Your task to perform on an android device: Search for razer kraken on newegg, select the first entry, add it to the cart, then select checkout. Image 0: 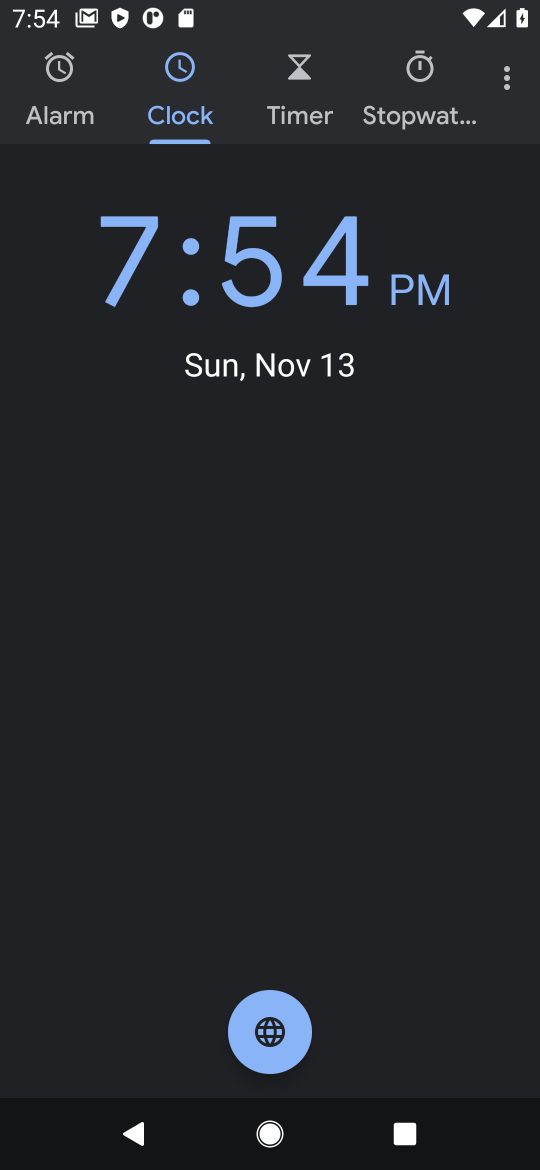
Step 0: press home button
Your task to perform on an android device: Search for razer kraken on newegg, select the first entry, add it to the cart, then select checkout. Image 1: 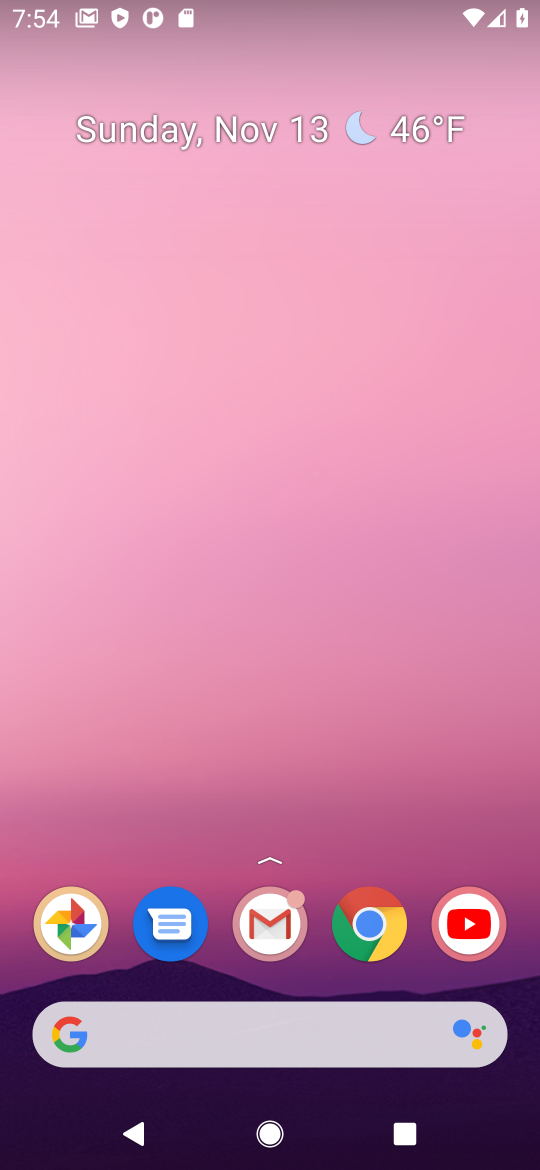
Step 1: click (372, 915)
Your task to perform on an android device: Search for razer kraken on newegg, select the first entry, add it to the cart, then select checkout. Image 2: 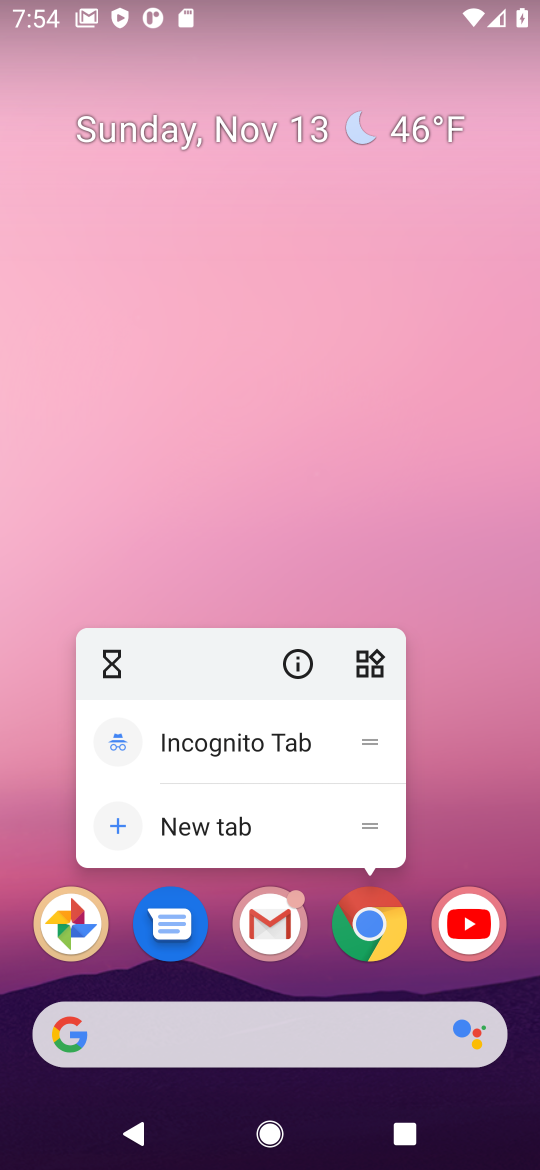
Step 2: click (372, 920)
Your task to perform on an android device: Search for razer kraken on newegg, select the first entry, add it to the cart, then select checkout. Image 3: 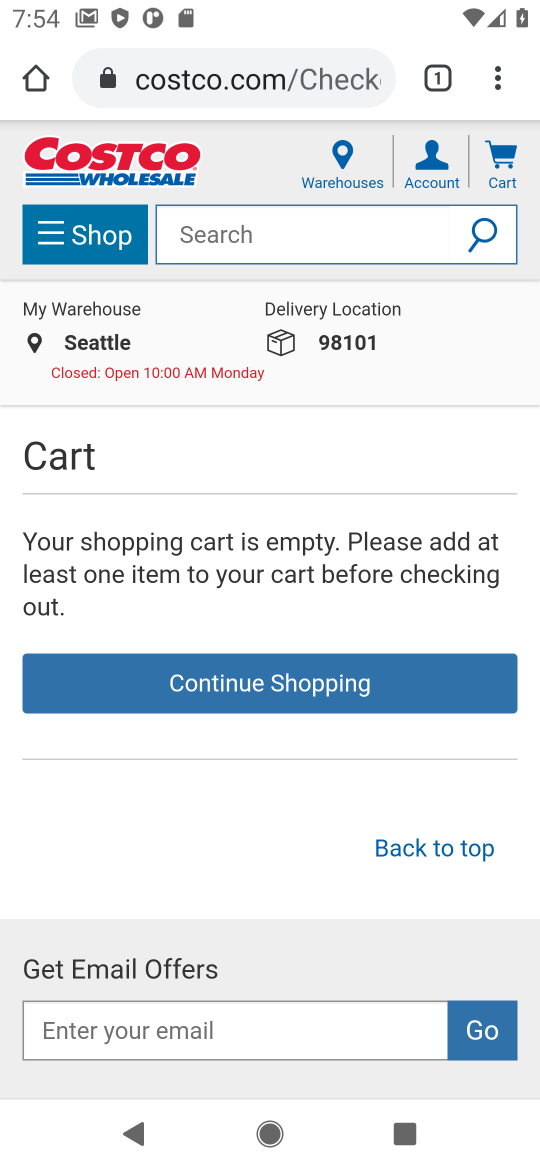
Step 3: click (324, 76)
Your task to perform on an android device: Search for razer kraken on newegg, select the first entry, add it to the cart, then select checkout. Image 4: 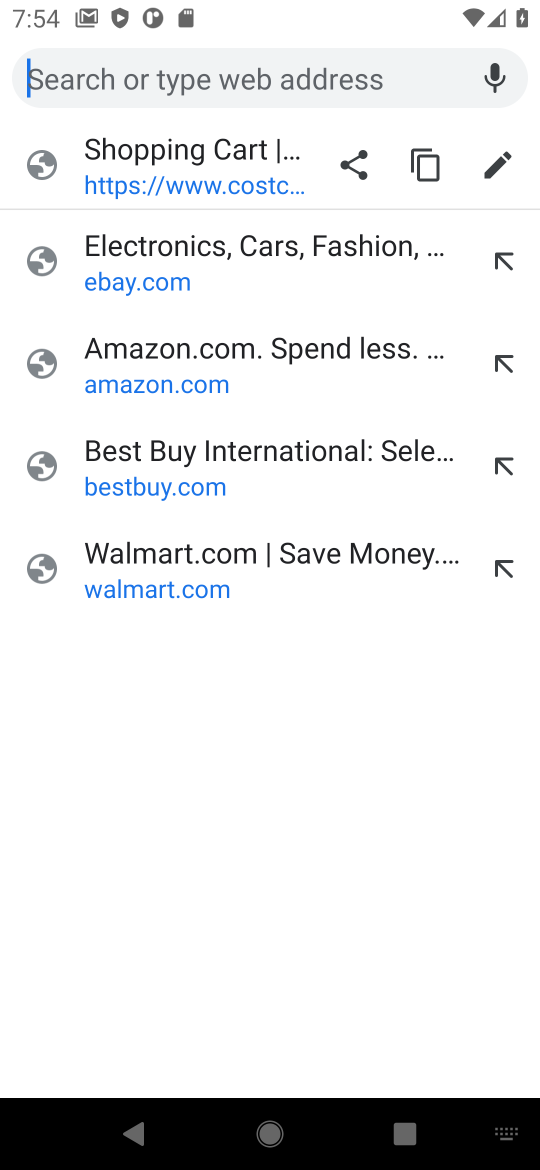
Step 4: type "newegg"
Your task to perform on an android device: Search for razer kraken on newegg, select the first entry, add it to the cart, then select checkout. Image 5: 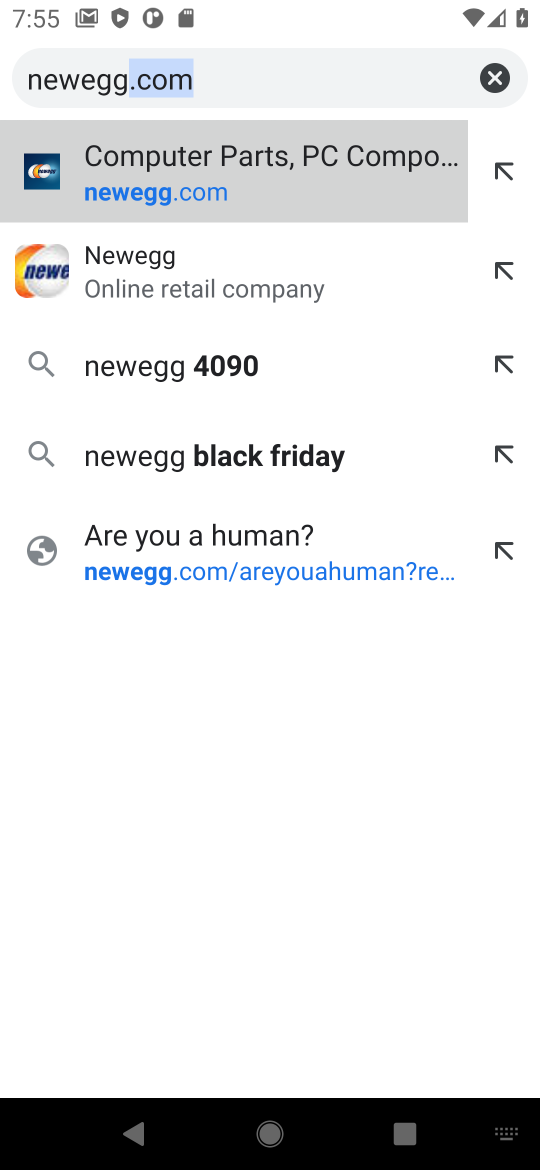
Step 5: press enter
Your task to perform on an android device: Search for razer kraken on newegg, select the first entry, add it to the cart, then select checkout. Image 6: 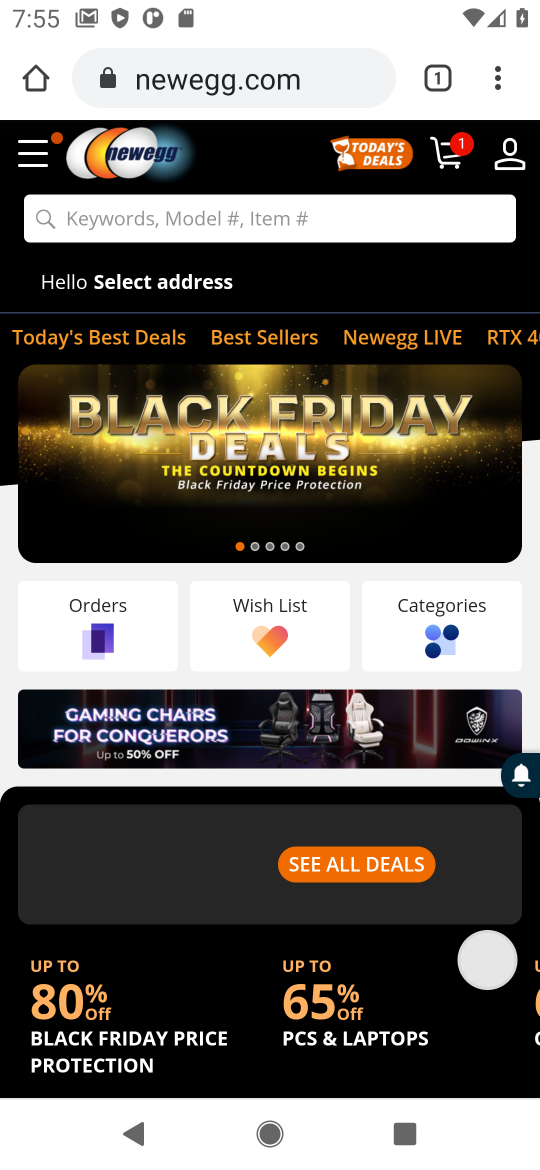
Step 6: click (273, 207)
Your task to perform on an android device: Search for razer kraken on newegg, select the first entry, add it to the cart, then select checkout. Image 7: 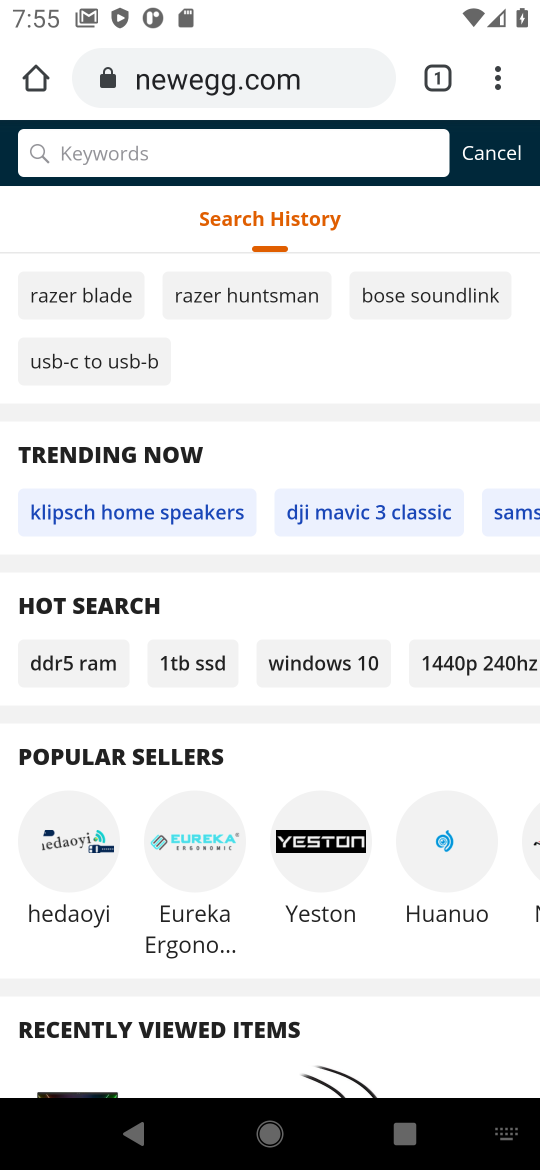
Step 7: type " razer kraken"
Your task to perform on an android device: Search for razer kraken on newegg, select the first entry, add it to the cart, then select checkout. Image 8: 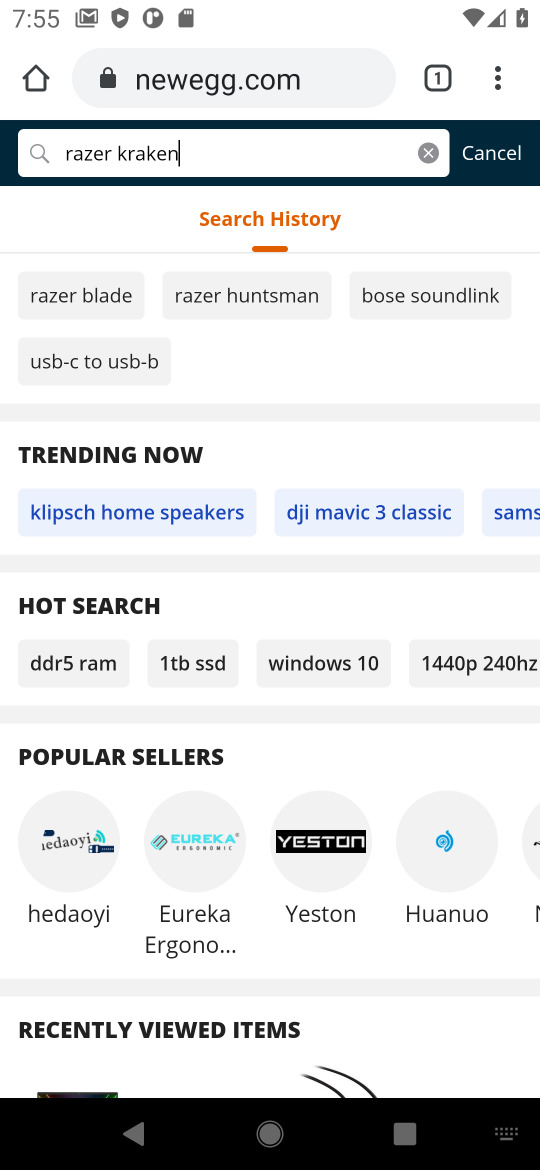
Step 8: press enter
Your task to perform on an android device: Search for razer kraken on newegg, select the first entry, add it to the cart, then select checkout. Image 9: 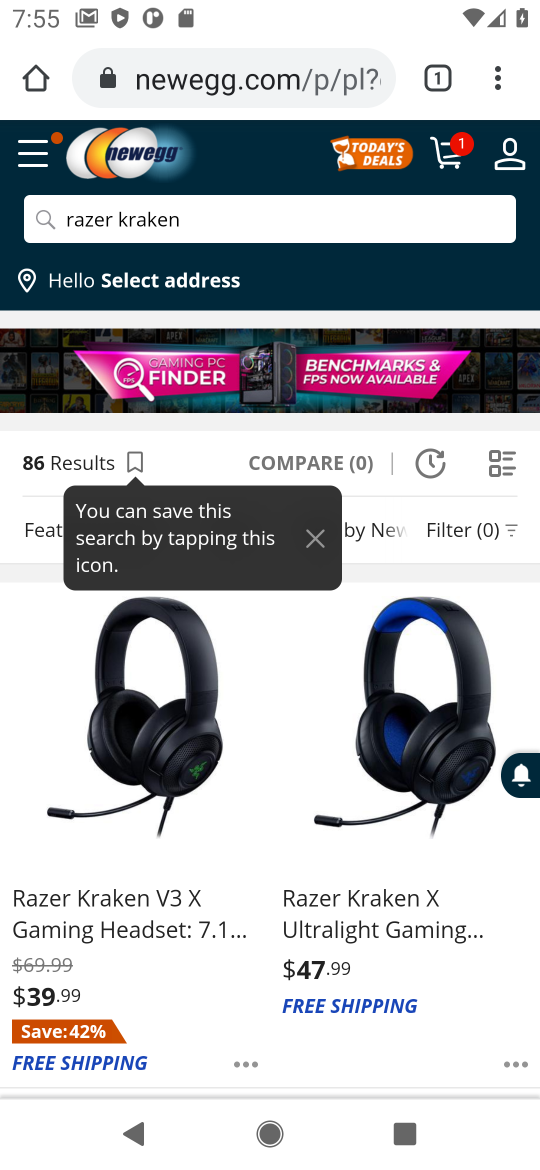
Step 9: click (51, 901)
Your task to perform on an android device: Search for razer kraken on newegg, select the first entry, add it to the cart, then select checkout. Image 10: 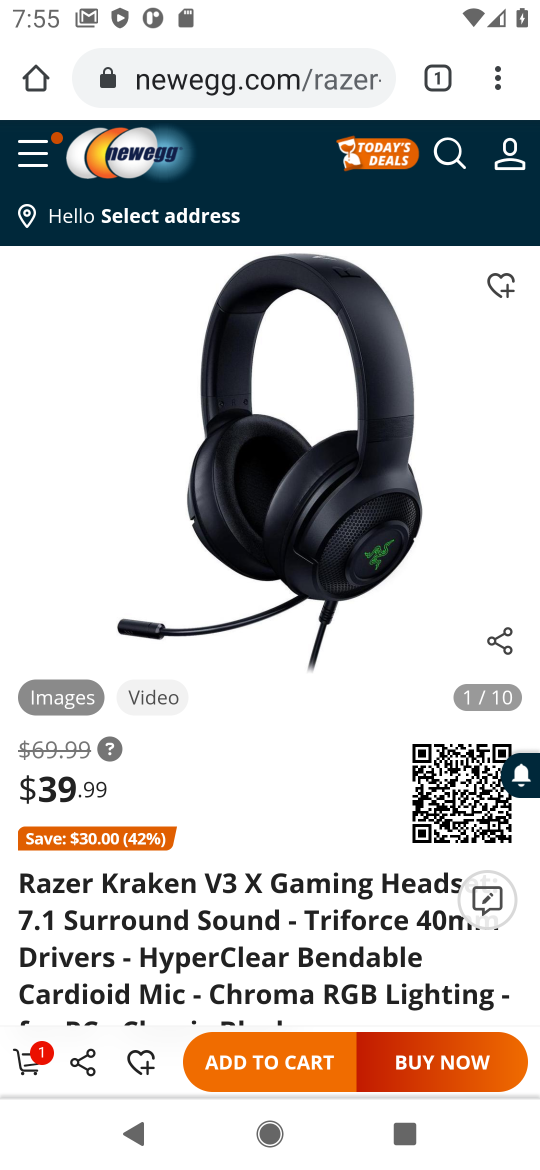
Step 10: drag from (183, 951) to (307, 569)
Your task to perform on an android device: Search for razer kraken on newegg, select the first entry, add it to the cart, then select checkout. Image 11: 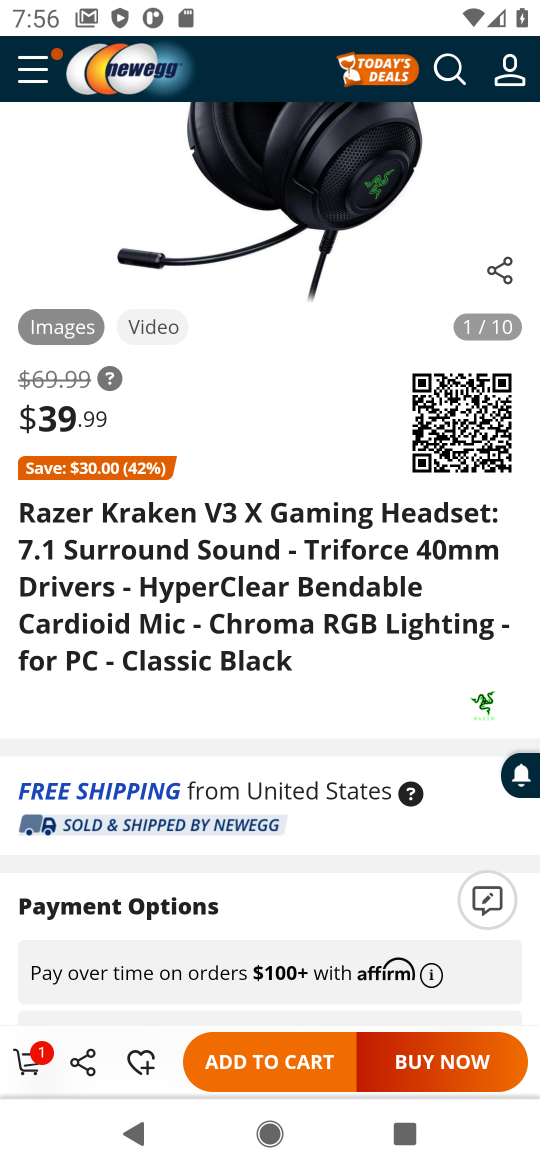
Step 11: click (271, 1061)
Your task to perform on an android device: Search for razer kraken on newegg, select the first entry, add it to the cart, then select checkout. Image 12: 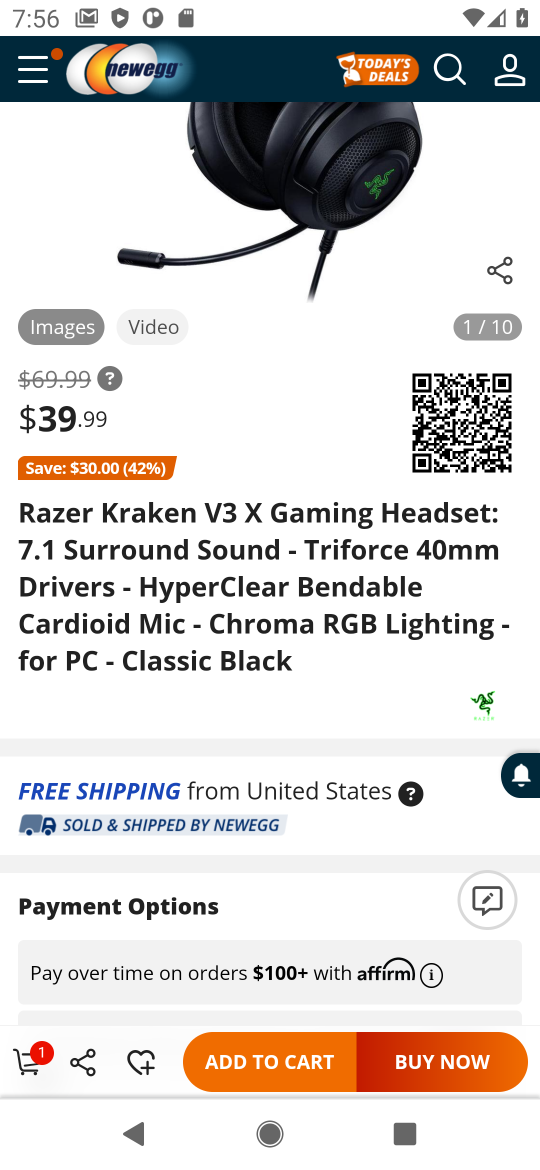
Step 12: click (291, 1059)
Your task to perform on an android device: Search for razer kraken on newegg, select the first entry, add it to the cart, then select checkout. Image 13: 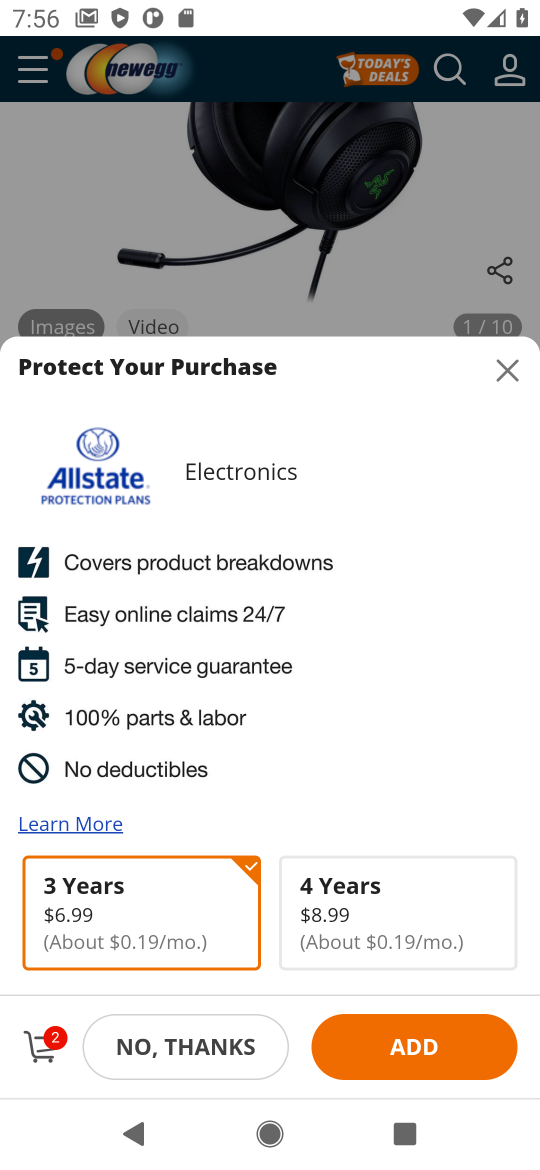
Step 13: click (39, 1043)
Your task to perform on an android device: Search for razer kraken on newegg, select the first entry, add it to the cart, then select checkout. Image 14: 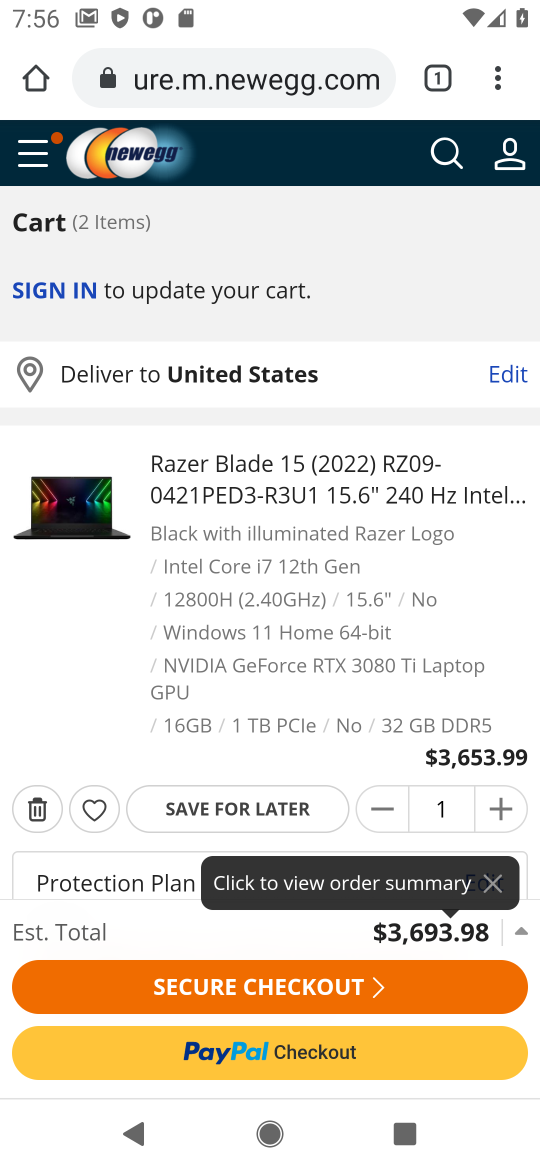
Step 14: click (38, 802)
Your task to perform on an android device: Search for razer kraken on newegg, select the first entry, add it to the cart, then select checkout. Image 15: 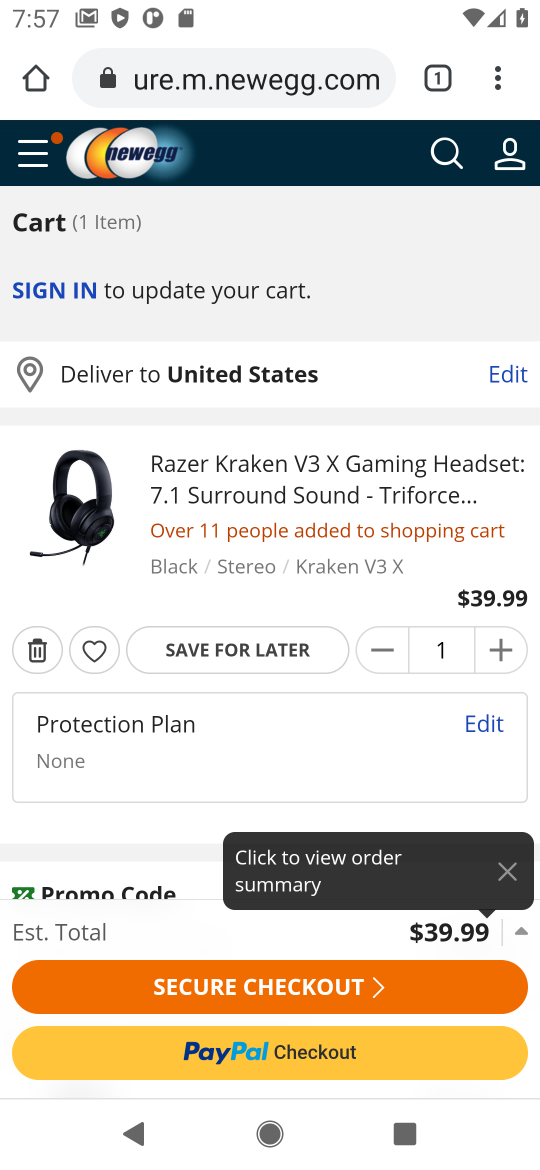
Step 15: task complete